Your task to perform on an android device: Search for Italian restaurants on Maps Image 0: 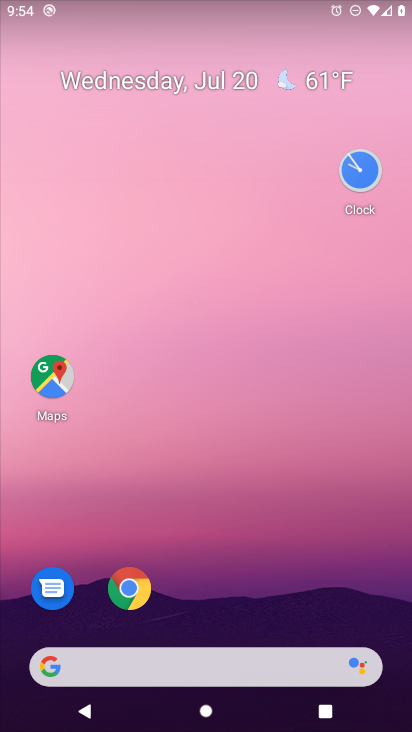
Step 0: click (63, 368)
Your task to perform on an android device: Search for Italian restaurants on Maps Image 1: 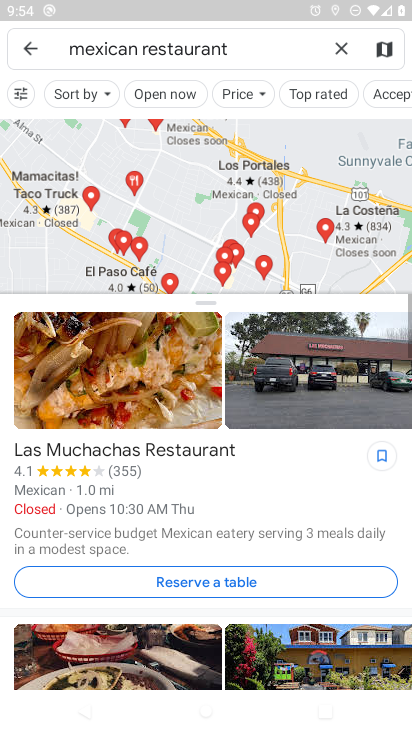
Step 1: click (342, 47)
Your task to perform on an android device: Search for Italian restaurants on Maps Image 2: 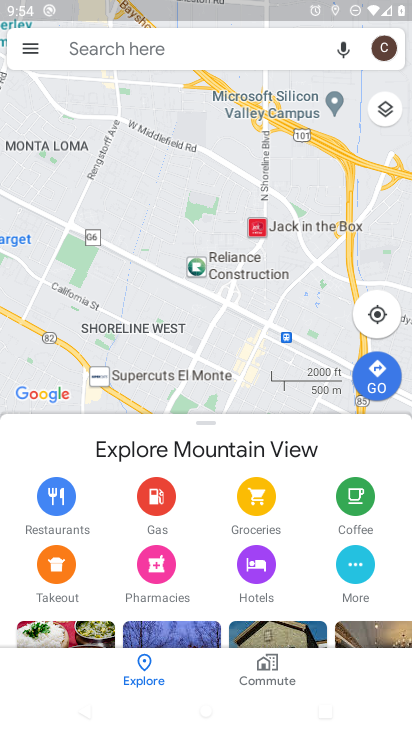
Step 2: click (85, 53)
Your task to perform on an android device: Search for Italian restaurants on Maps Image 3: 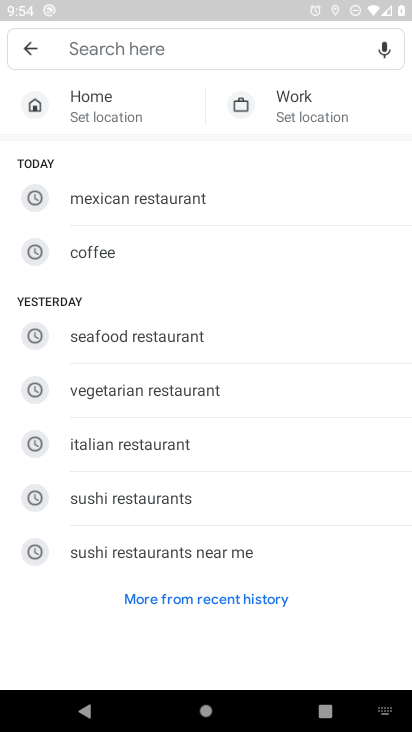
Step 3: click (148, 433)
Your task to perform on an android device: Search for Italian restaurants on Maps Image 4: 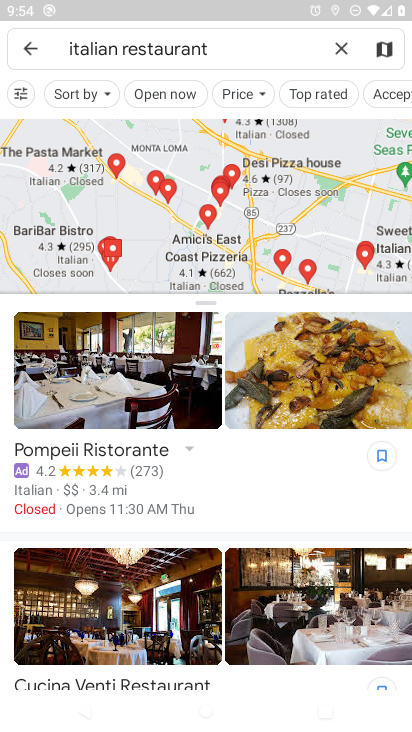
Step 4: task complete